Your task to perform on an android device: Open accessibility settings Image 0: 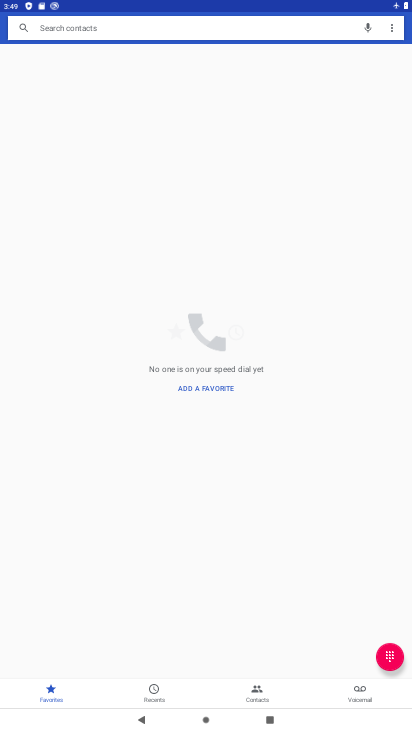
Step 0: press home button
Your task to perform on an android device: Open accessibility settings Image 1: 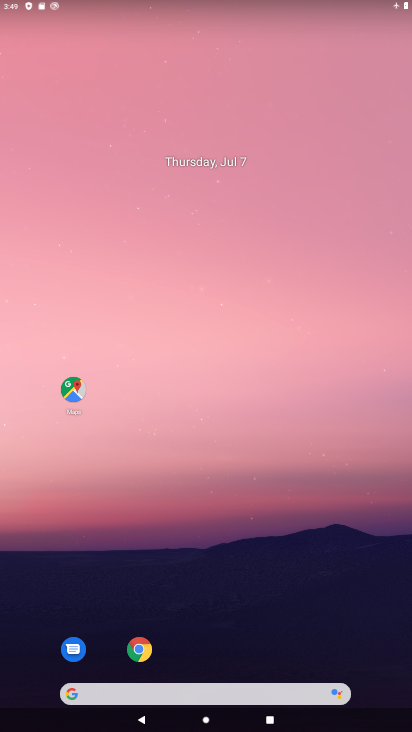
Step 1: drag from (228, 621) to (273, 159)
Your task to perform on an android device: Open accessibility settings Image 2: 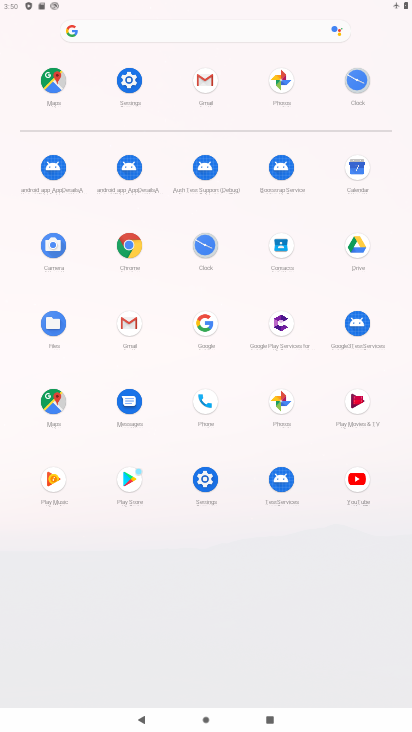
Step 2: click (116, 89)
Your task to perform on an android device: Open accessibility settings Image 3: 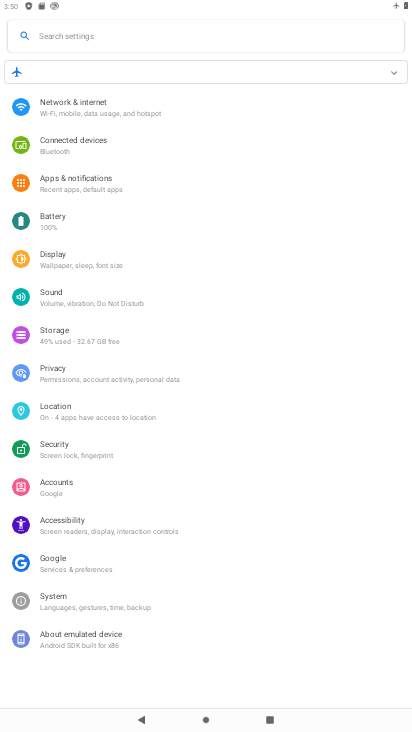
Step 3: click (73, 536)
Your task to perform on an android device: Open accessibility settings Image 4: 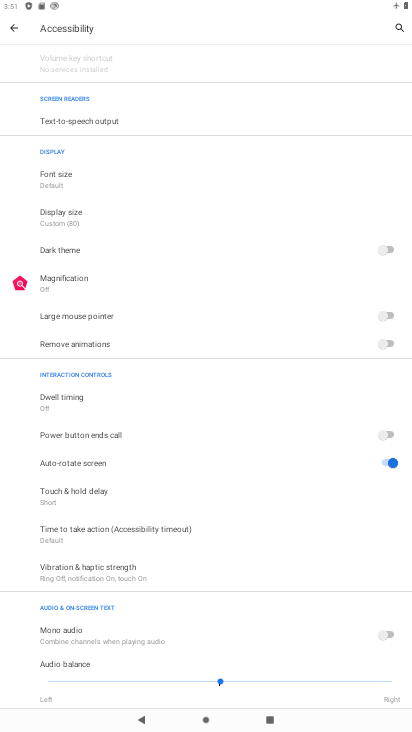
Step 4: task complete